Your task to perform on an android device: Set the phone to "Do not disturb". Image 0: 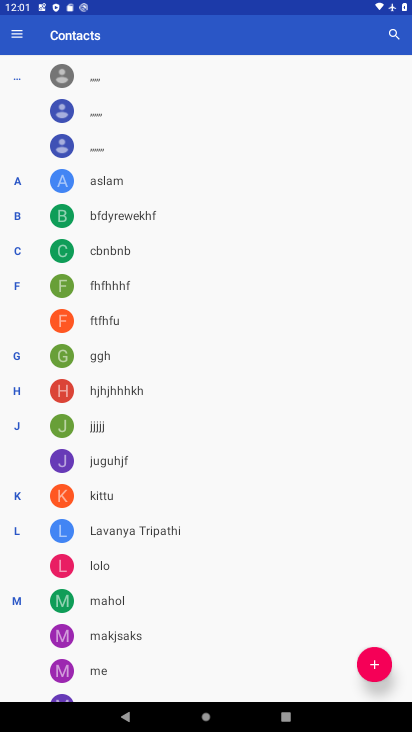
Step 0: press home button
Your task to perform on an android device: Set the phone to "Do not disturb". Image 1: 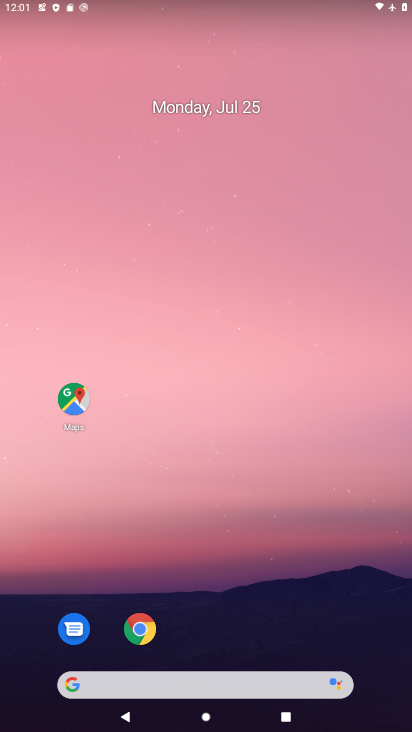
Step 1: drag from (271, 651) to (334, 149)
Your task to perform on an android device: Set the phone to "Do not disturb". Image 2: 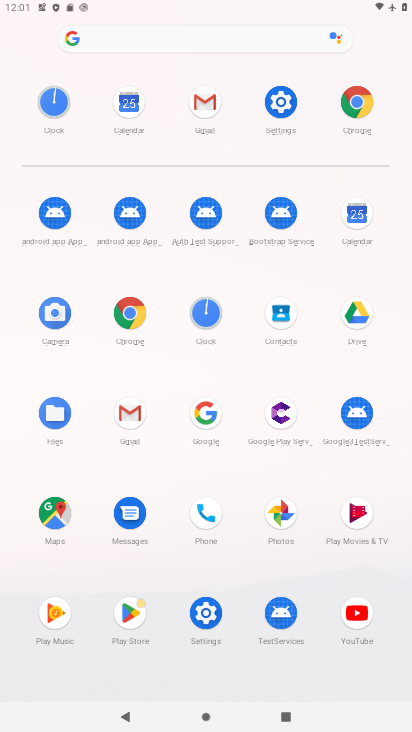
Step 2: click (292, 117)
Your task to perform on an android device: Set the phone to "Do not disturb". Image 3: 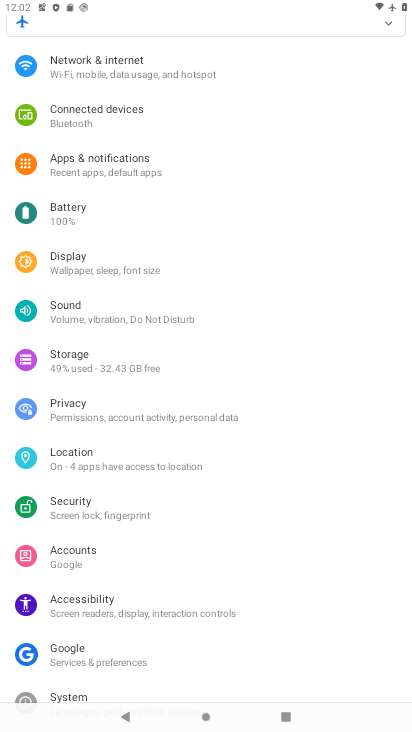
Step 3: task complete